Your task to perform on an android device: check out phone information Image 0: 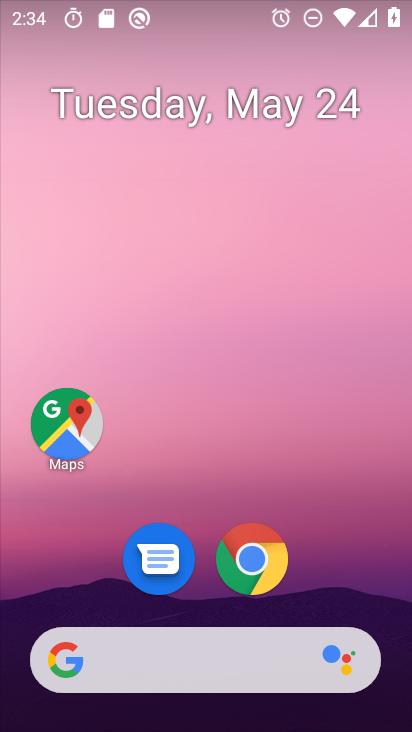
Step 0: drag from (389, 704) to (367, 269)
Your task to perform on an android device: check out phone information Image 1: 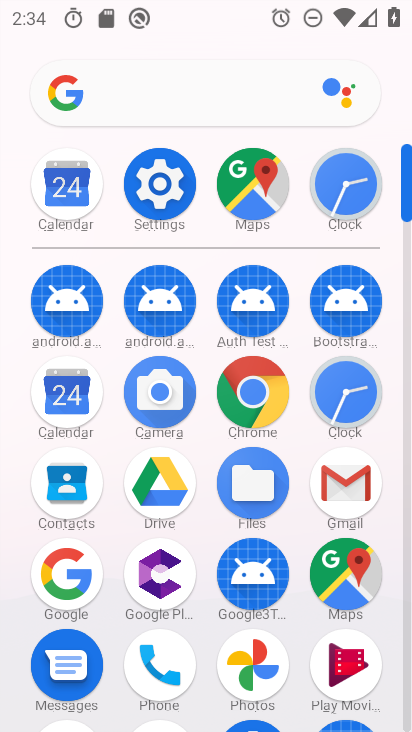
Step 1: click (152, 188)
Your task to perform on an android device: check out phone information Image 2: 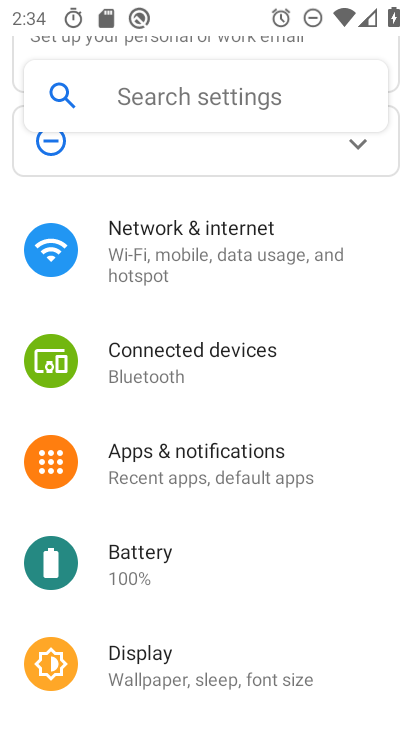
Step 2: drag from (376, 705) to (393, 286)
Your task to perform on an android device: check out phone information Image 3: 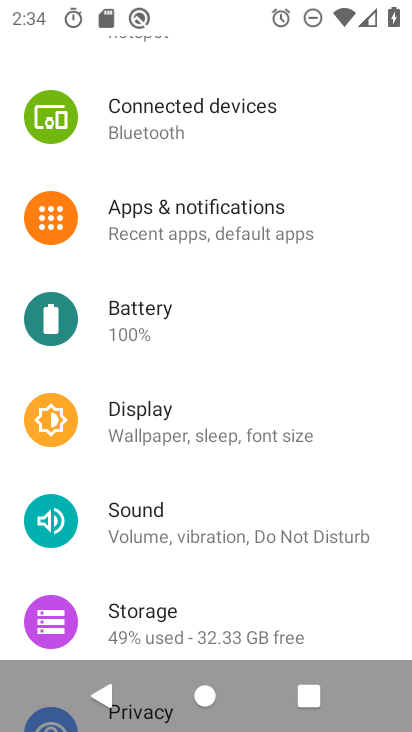
Step 3: drag from (373, 643) to (385, 256)
Your task to perform on an android device: check out phone information Image 4: 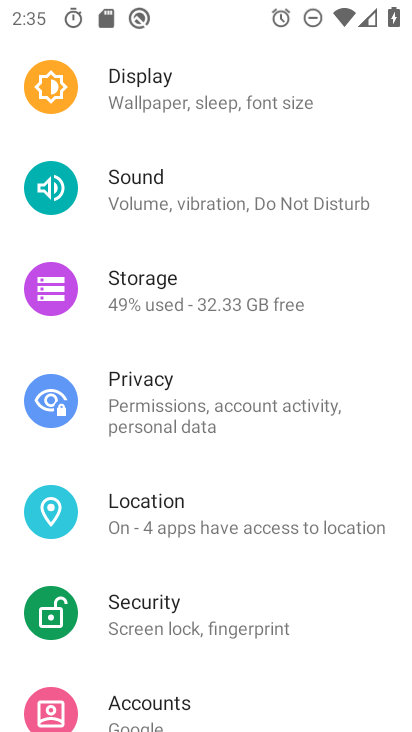
Step 4: click (333, 281)
Your task to perform on an android device: check out phone information Image 5: 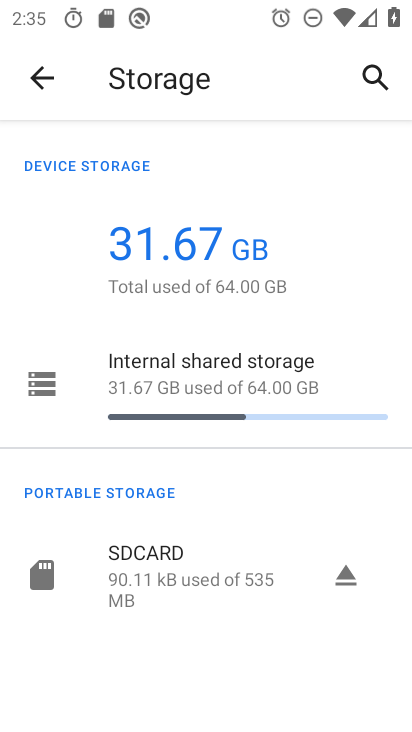
Step 5: click (45, 68)
Your task to perform on an android device: check out phone information Image 6: 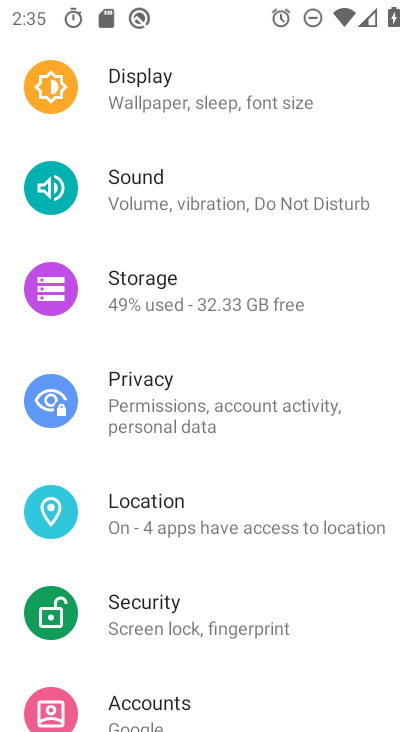
Step 6: drag from (362, 707) to (361, 129)
Your task to perform on an android device: check out phone information Image 7: 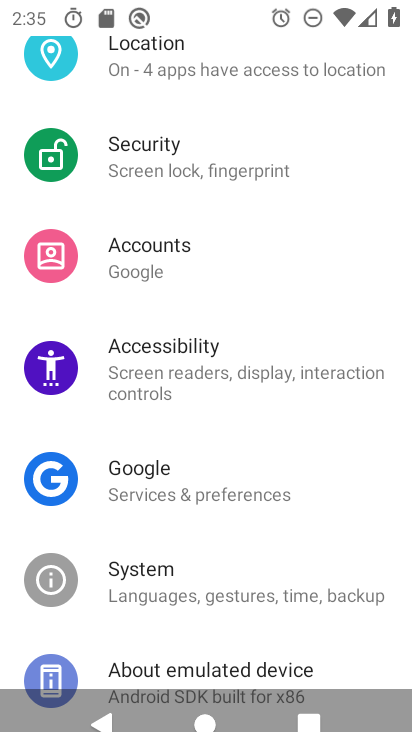
Step 7: drag from (350, 650) to (359, 335)
Your task to perform on an android device: check out phone information Image 8: 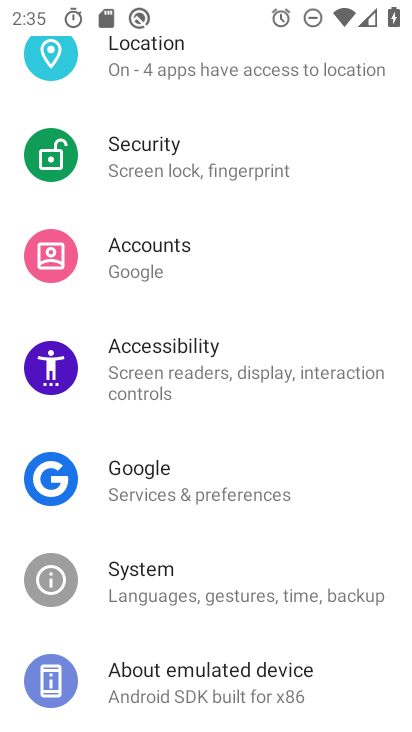
Step 8: click (146, 678)
Your task to perform on an android device: check out phone information Image 9: 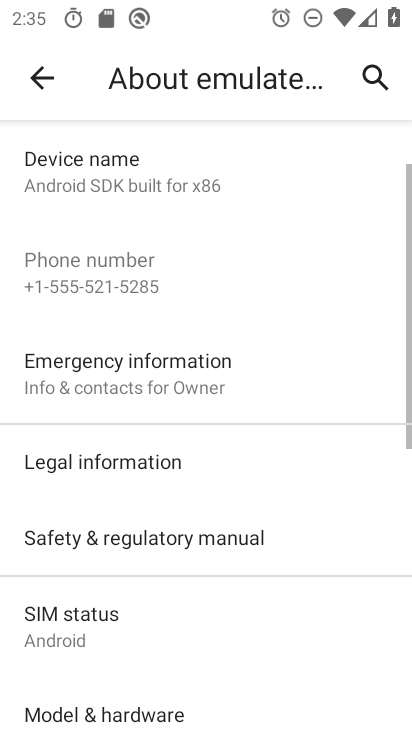
Step 9: task complete